Your task to perform on an android device: allow notifications from all sites in the chrome app Image 0: 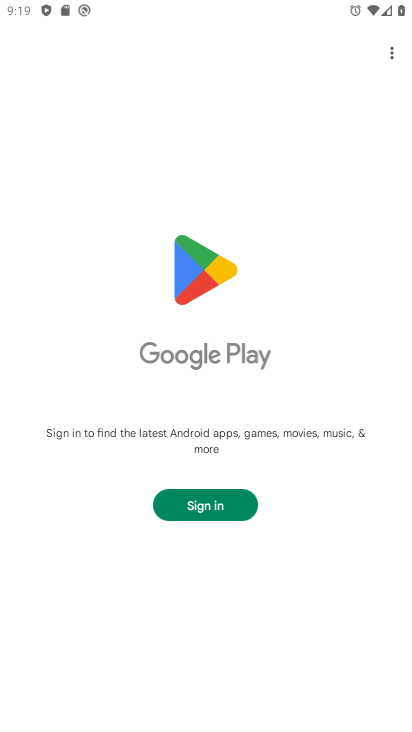
Step 0: press home button
Your task to perform on an android device: allow notifications from all sites in the chrome app Image 1: 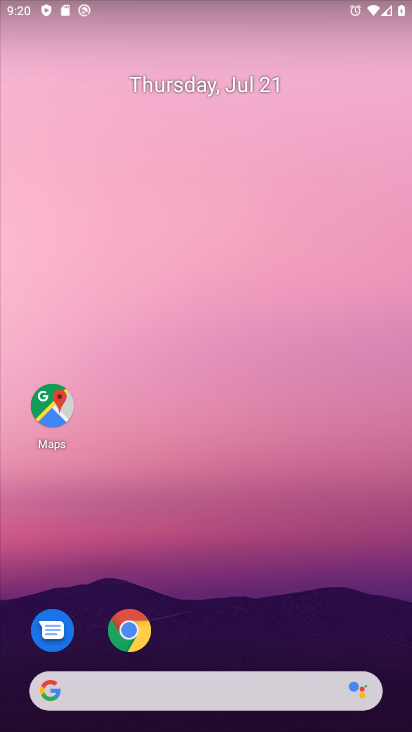
Step 1: drag from (224, 712) to (195, 199)
Your task to perform on an android device: allow notifications from all sites in the chrome app Image 2: 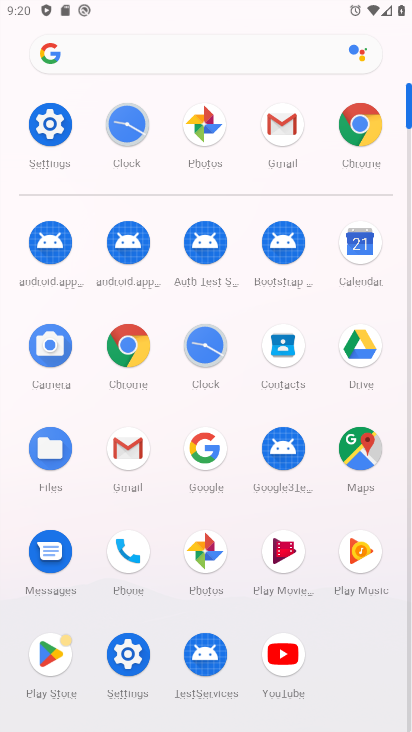
Step 2: click (130, 345)
Your task to perform on an android device: allow notifications from all sites in the chrome app Image 3: 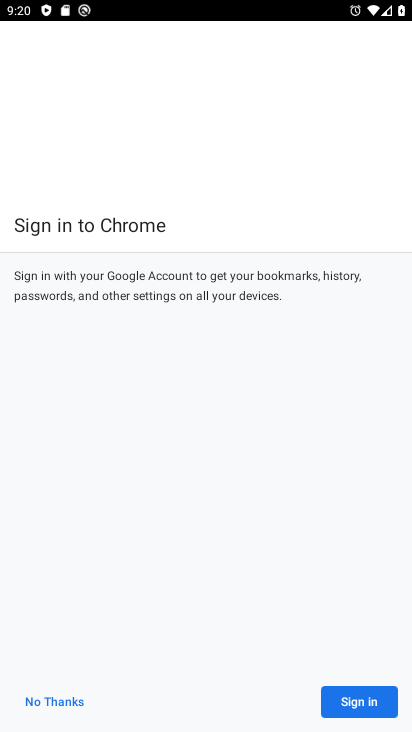
Step 3: task complete